Your task to perform on an android device: Open privacy settings Image 0: 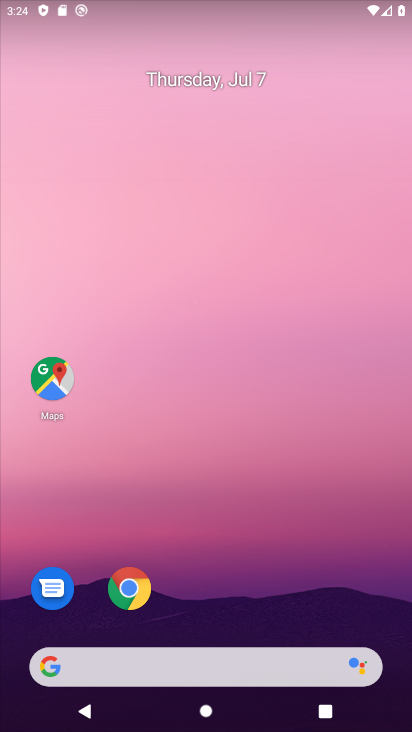
Step 0: drag from (129, 665) to (177, 31)
Your task to perform on an android device: Open privacy settings Image 1: 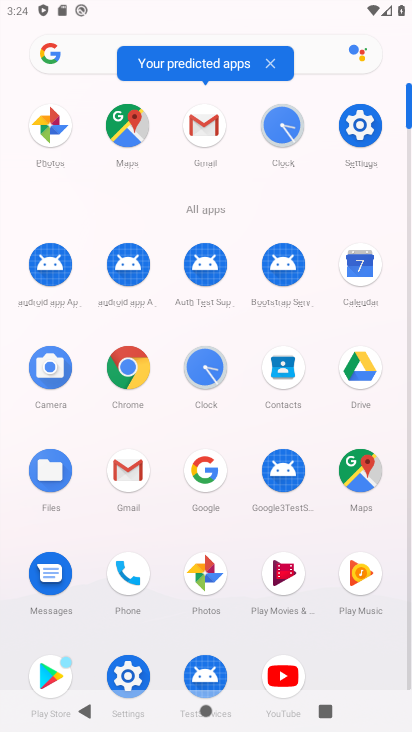
Step 1: click (359, 124)
Your task to perform on an android device: Open privacy settings Image 2: 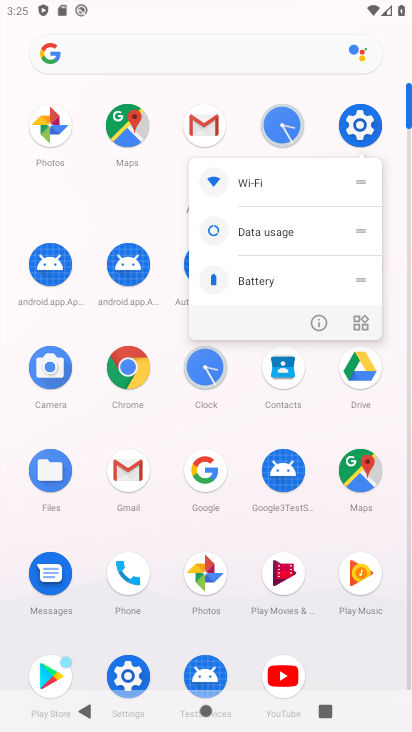
Step 2: click (363, 130)
Your task to perform on an android device: Open privacy settings Image 3: 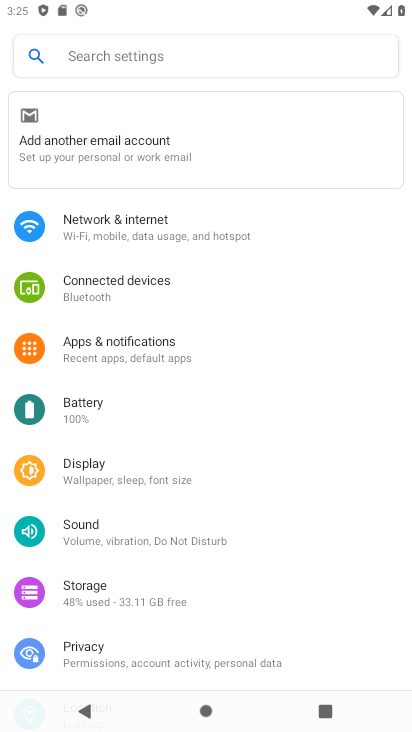
Step 3: click (90, 642)
Your task to perform on an android device: Open privacy settings Image 4: 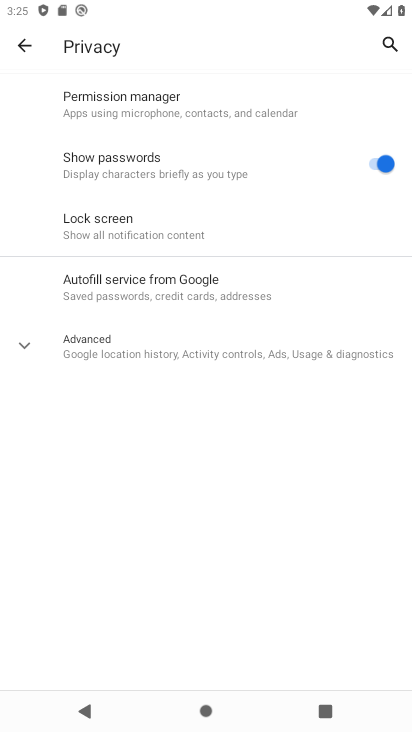
Step 4: task complete